Your task to perform on an android device: What's the weather today? Image 0: 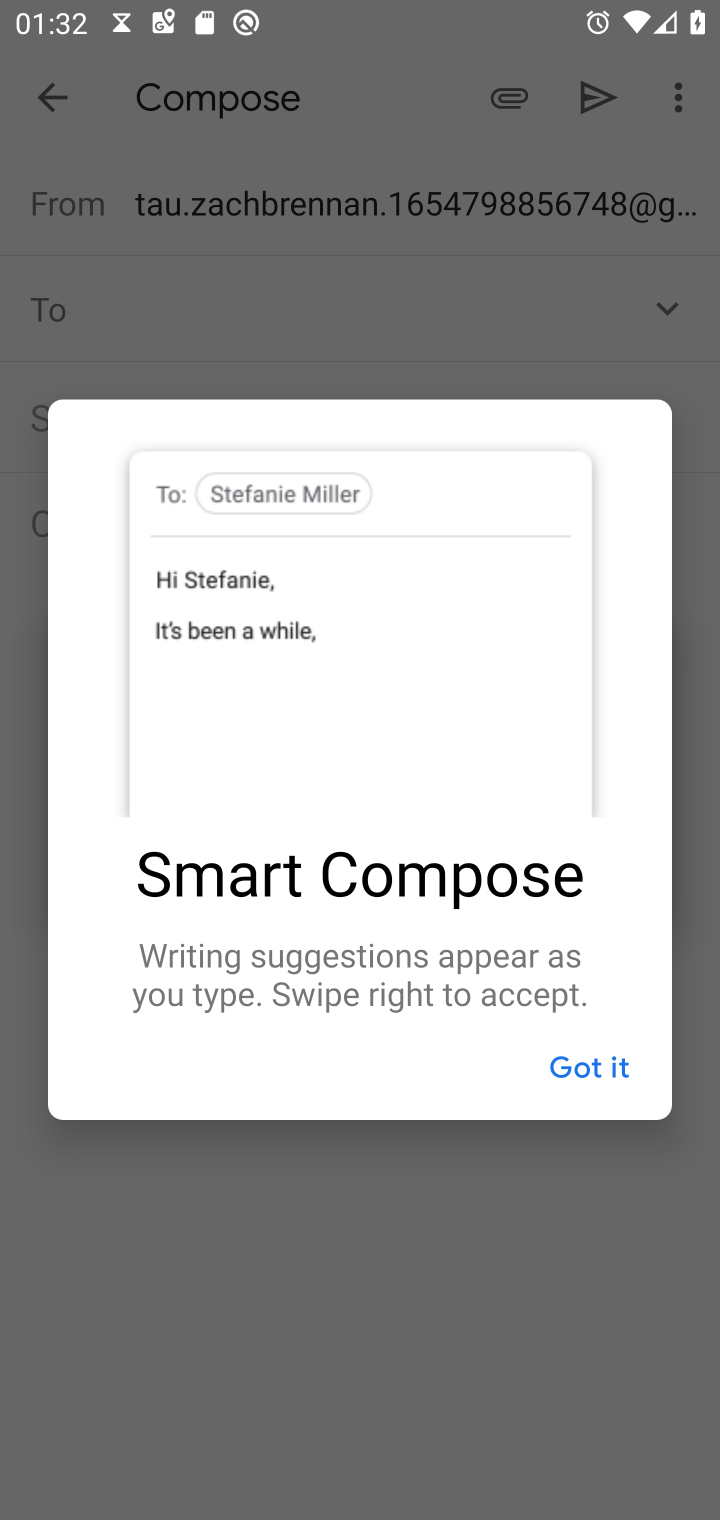
Step 0: press home button
Your task to perform on an android device: What's the weather today? Image 1: 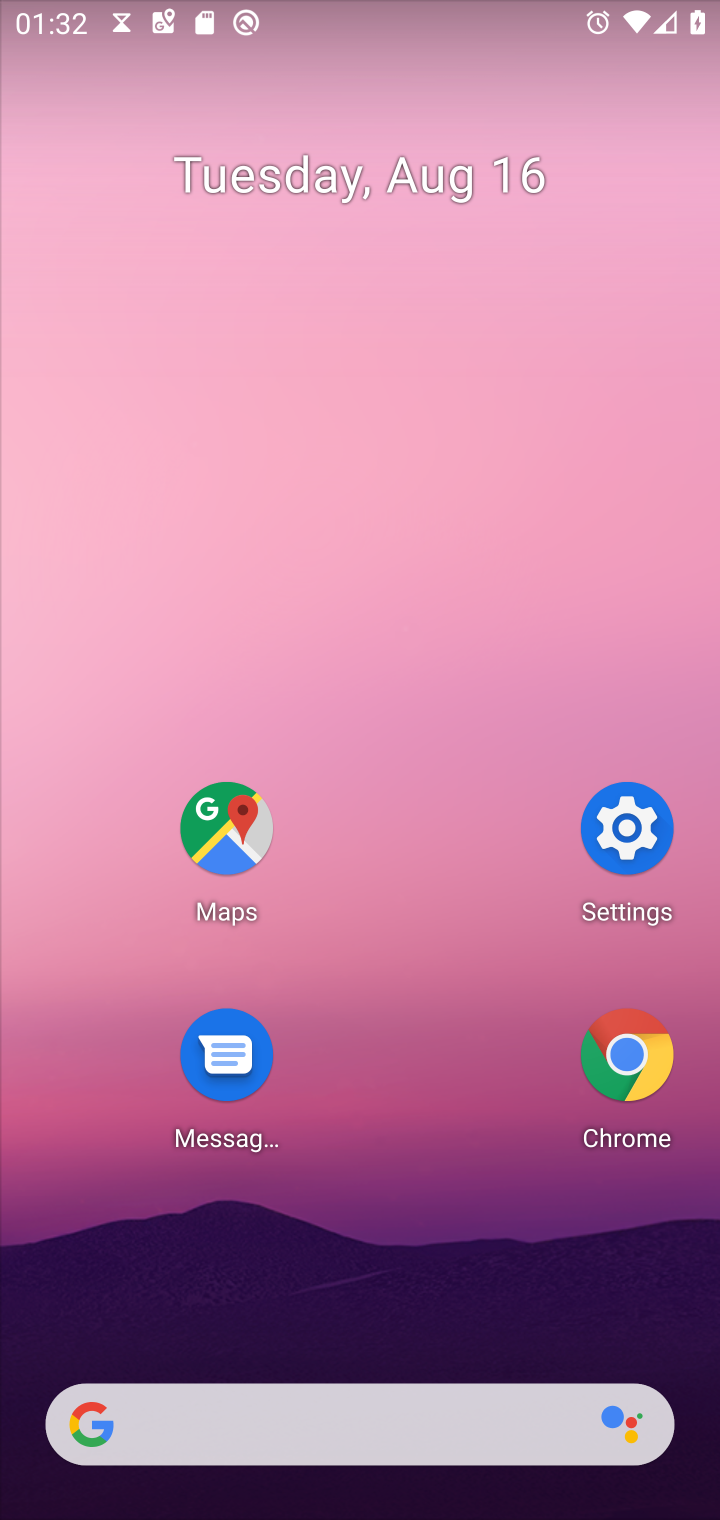
Step 1: press home button
Your task to perform on an android device: What's the weather today? Image 2: 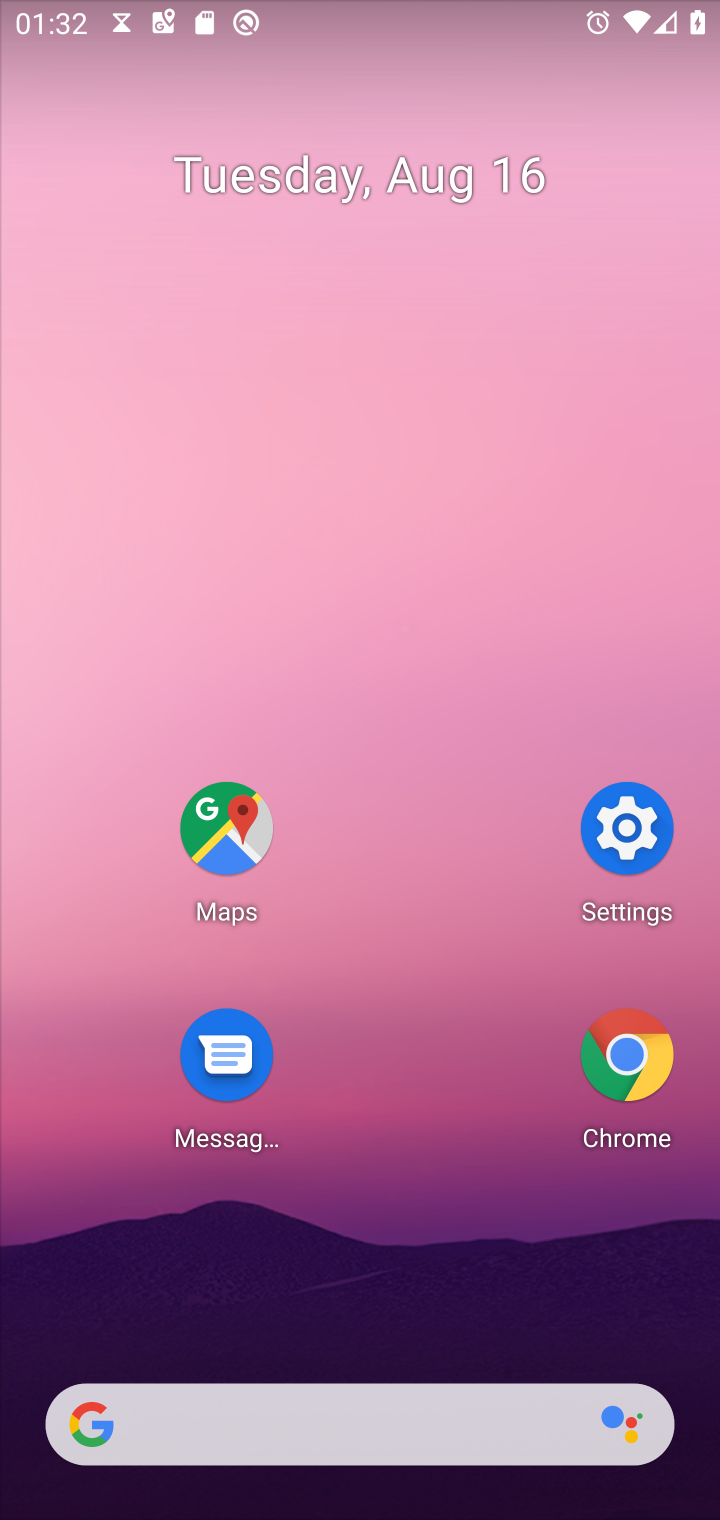
Step 2: click (289, 1406)
Your task to perform on an android device: What's the weather today? Image 3: 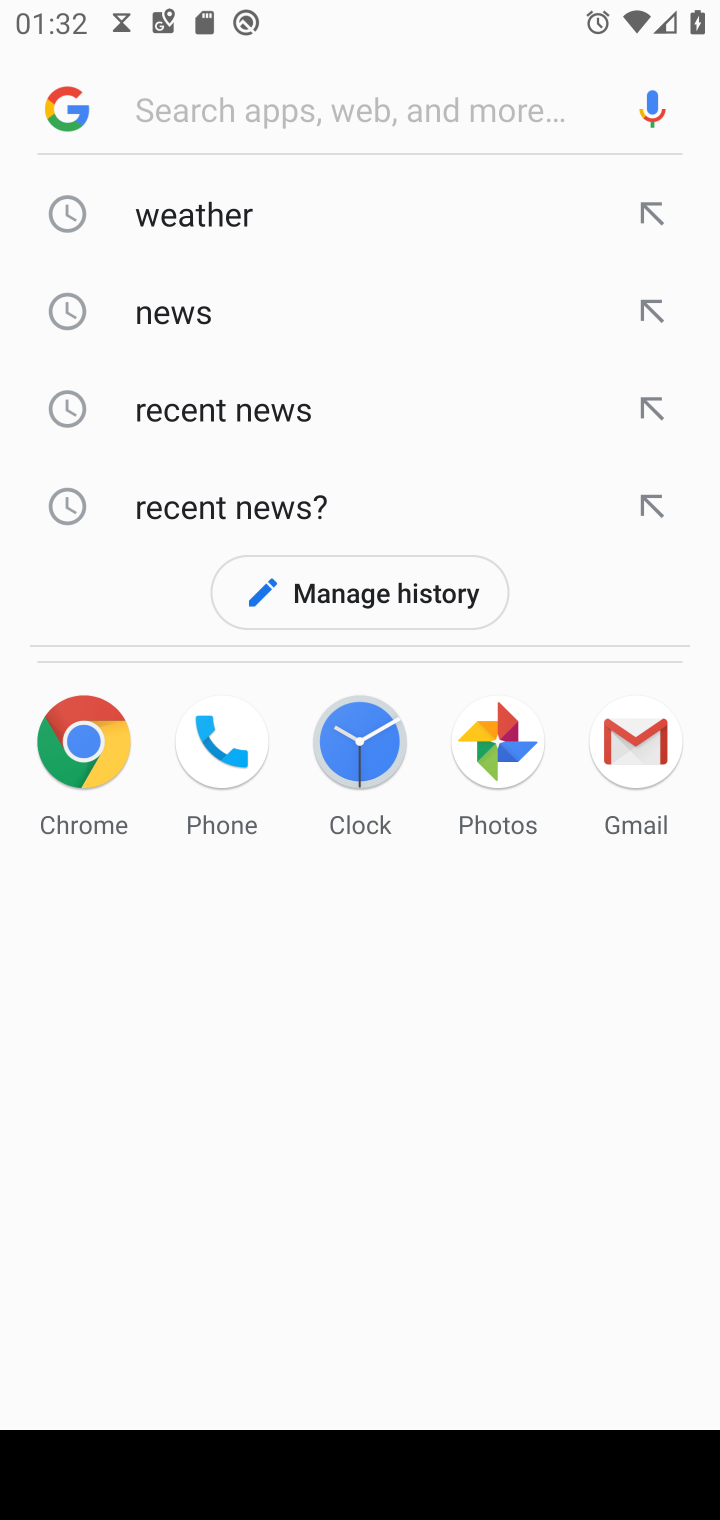
Step 3: click (268, 204)
Your task to perform on an android device: What's the weather today? Image 4: 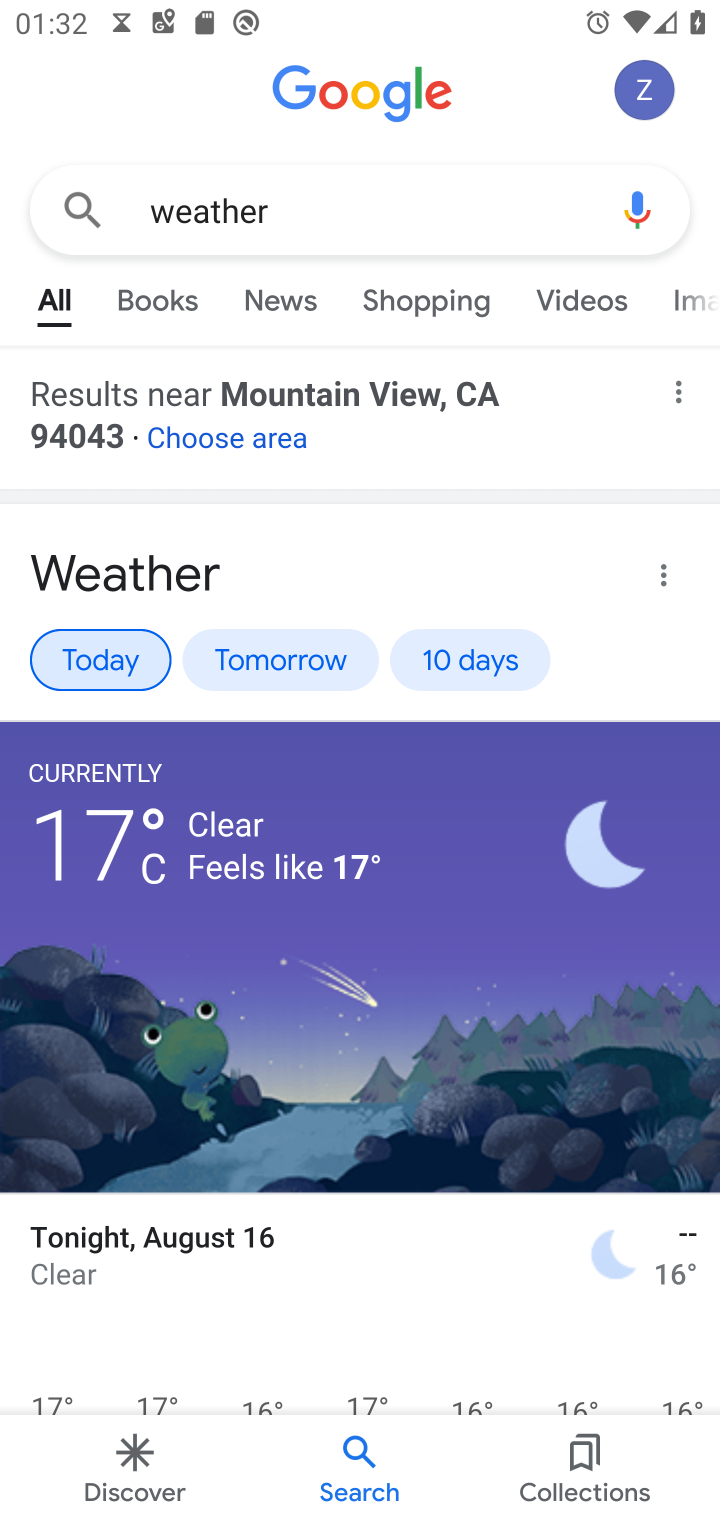
Step 4: task complete